Your task to perform on an android device: allow notifications from all sites in the chrome app Image 0: 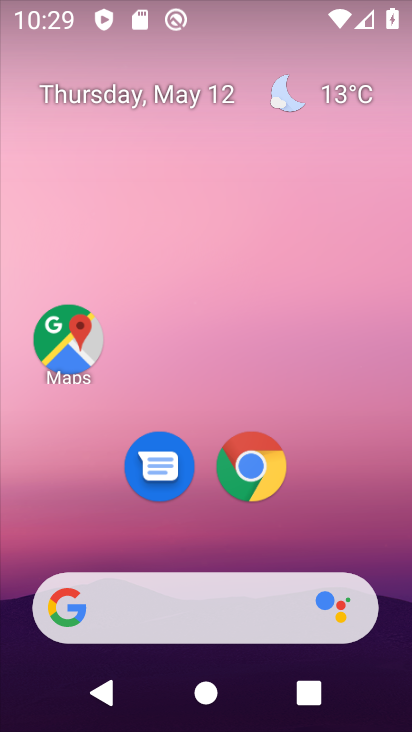
Step 0: drag from (353, 480) to (331, 129)
Your task to perform on an android device: allow notifications from all sites in the chrome app Image 1: 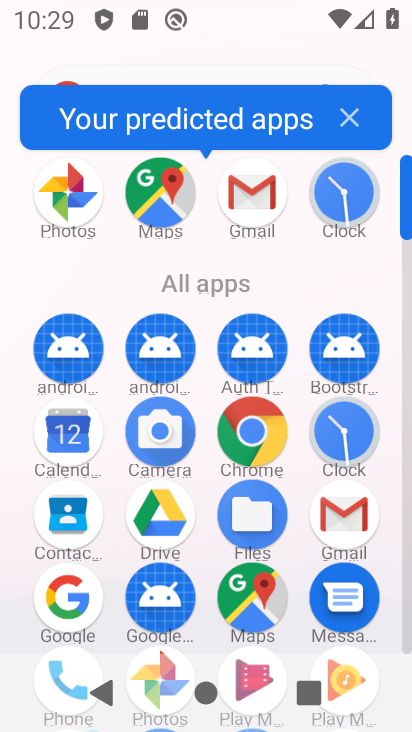
Step 1: click (270, 429)
Your task to perform on an android device: allow notifications from all sites in the chrome app Image 2: 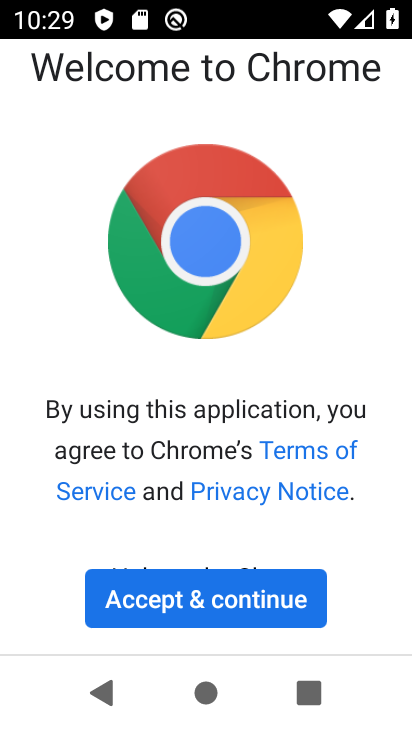
Step 2: click (261, 618)
Your task to perform on an android device: allow notifications from all sites in the chrome app Image 3: 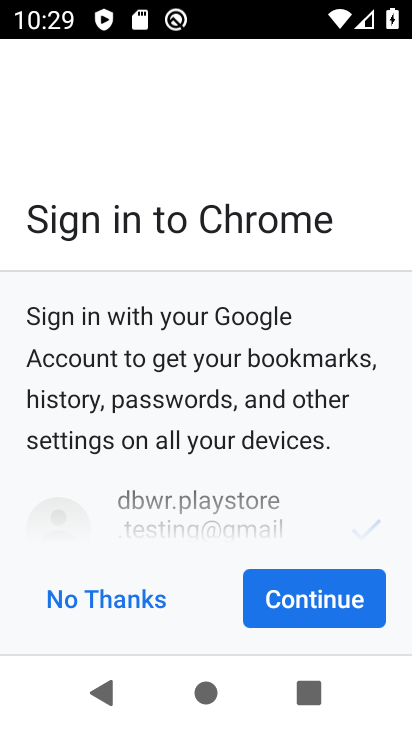
Step 3: click (269, 610)
Your task to perform on an android device: allow notifications from all sites in the chrome app Image 4: 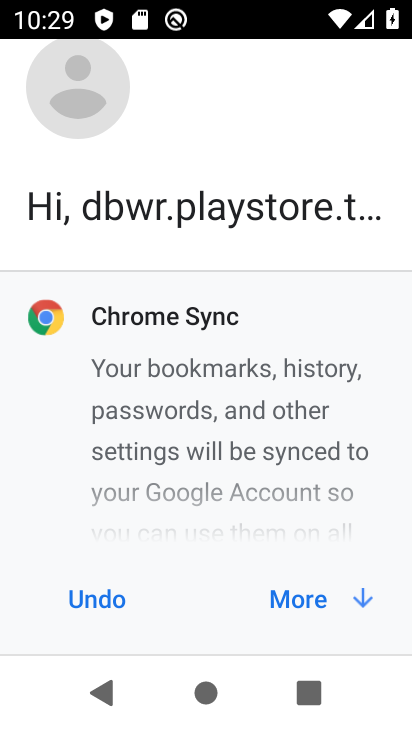
Step 4: click (269, 610)
Your task to perform on an android device: allow notifications from all sites in the chrome app Image 5: 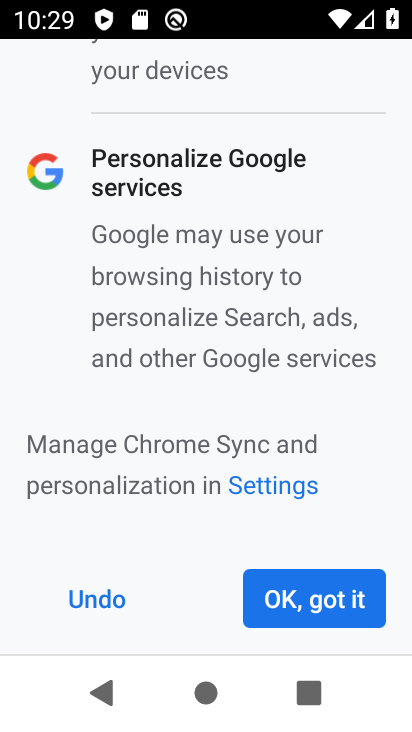
Step 5: click (269, 610)
Your task to perform on an android device: allow notifications from all sites in the chrome app Image 6: 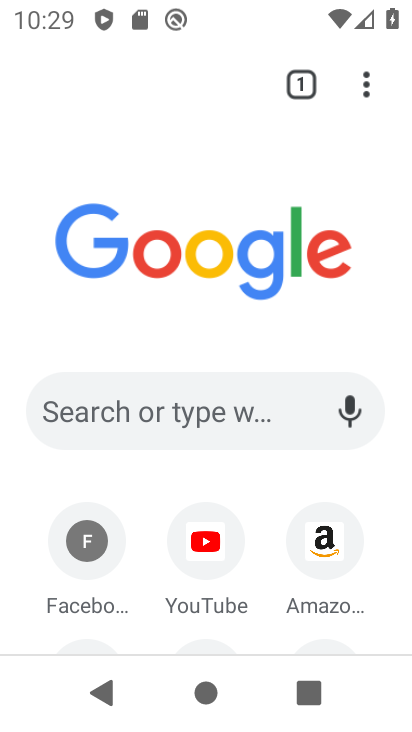
Step 6: drag from (368, 93) to (256, 540)
Your task to perform on an android device: allow notifications from all sites in the chrome app Image 7: 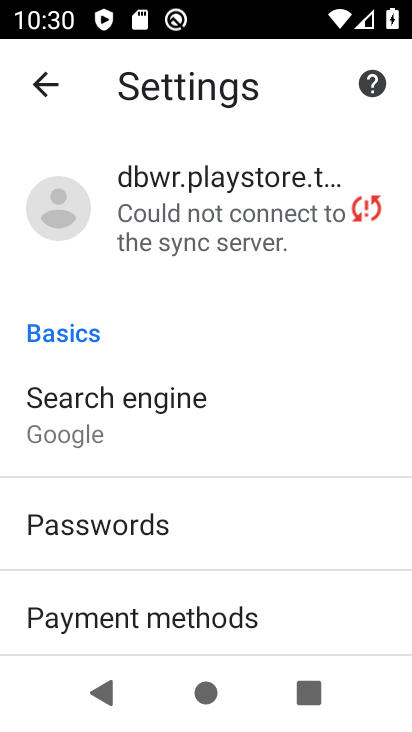
Step 7: drag from (279, 600) to (271, 248)
Your task to perform on an android device: allow notifications from all sites in the chrome app Image 8: 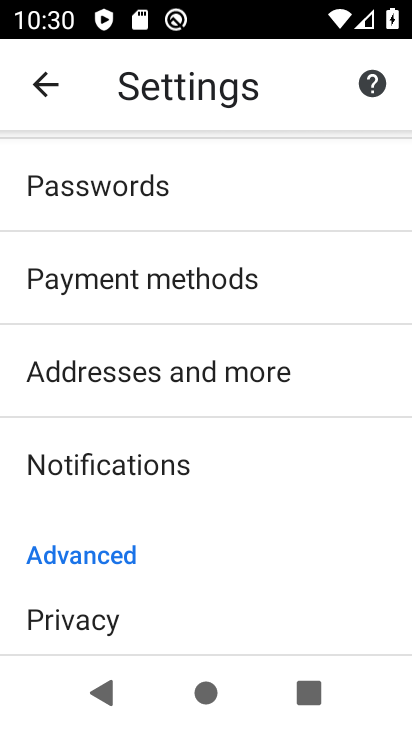
Step 8: drag from (277, 578) to (269, 345)
Your task to perform on an android device: allow notifications from all sites in the chrome app Image 9: 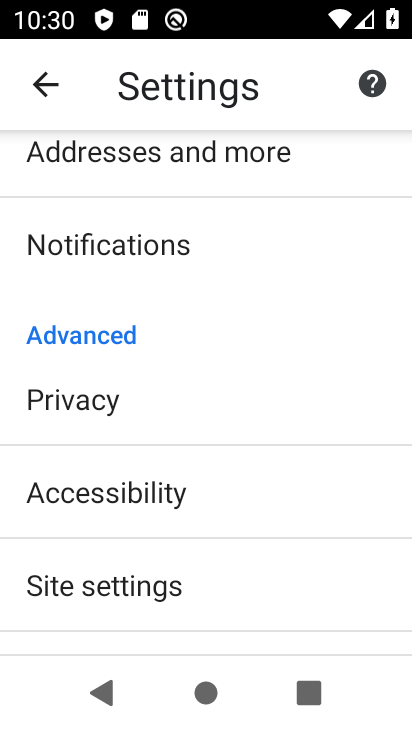
Step 9: click (219, 586)
Your task to perform on an android device: allow notifications from all sites in the chrome app Image 10: 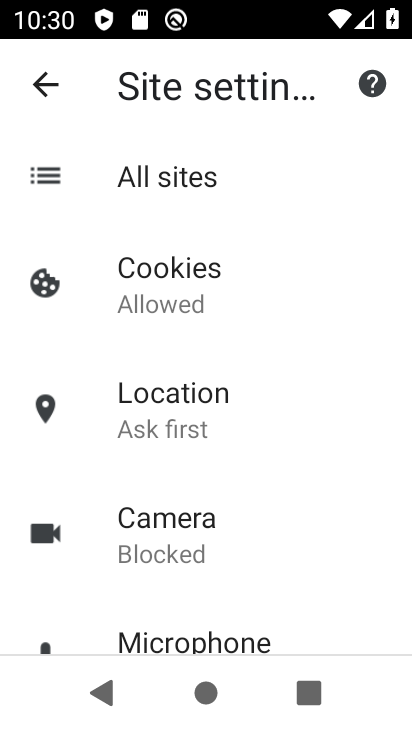
Step 10: click (214, 172)
Your task to perform on an android device: allow notifications from all sites in the chrome app Image 11: 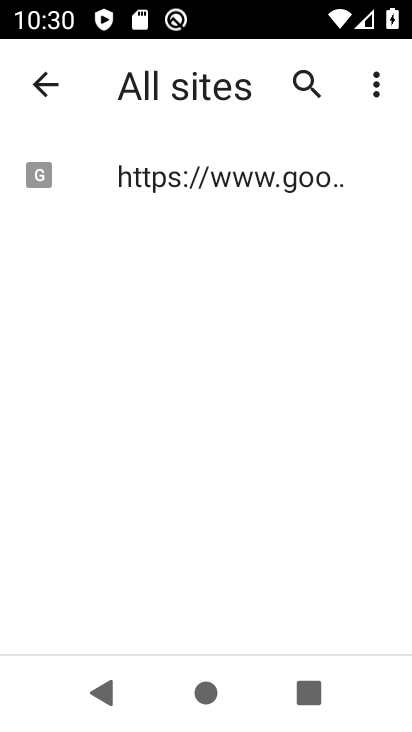
Step 11: task complete